Your task to perform on an android device: Open Android settings Image 0: 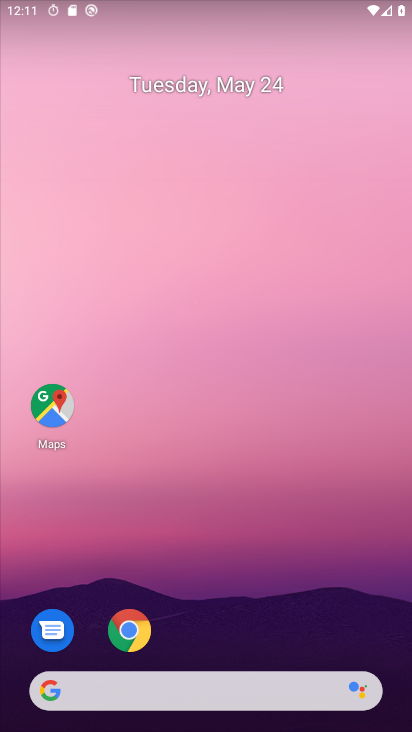
Step 0: drag from (191, 636) to (264, 160)
Your task to perform on an android device: Open Android settings Image 1: 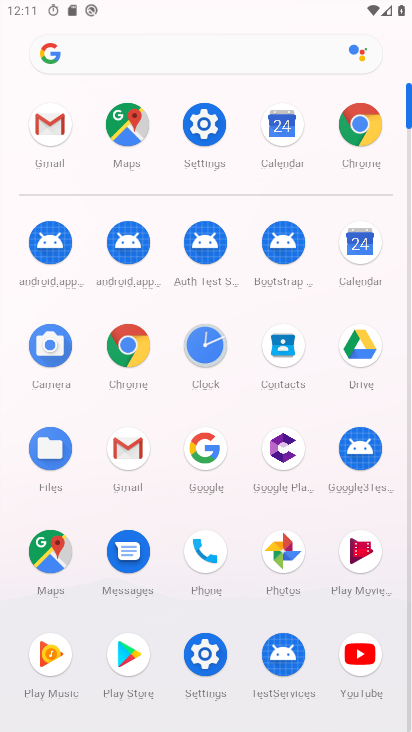
Step 1: click (215, 666)
Your task to perform on an android device: Open Android settings Image 2: 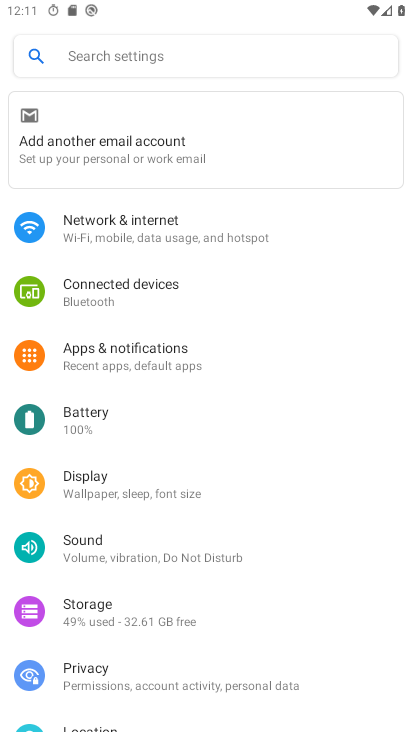
Step 2: drag from (128, 523) to (166, 339)
Your task to perform on an android device: Open Android settings Image 3: 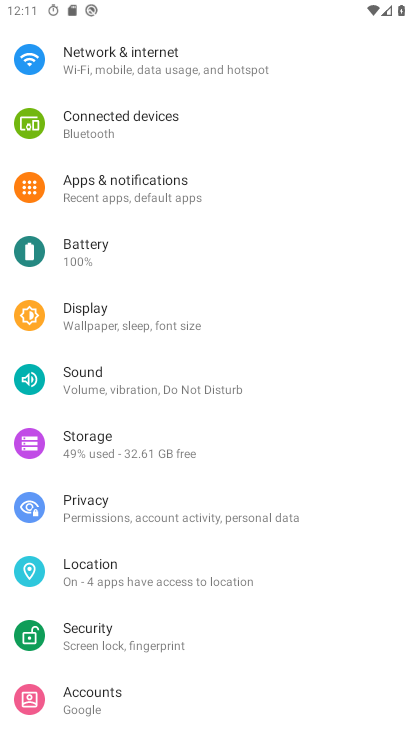
Step 3: drag from (154, 630) to (240, 159)
Your task to perform on an android device: Open Android settings Image 4: 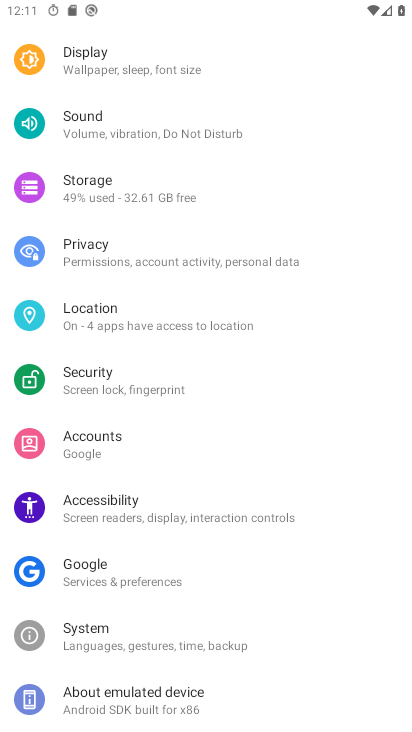
Step 4: drag from (154, 601) to (190, 347)
Your task to perform on an android device: Open Android settings Image 5: 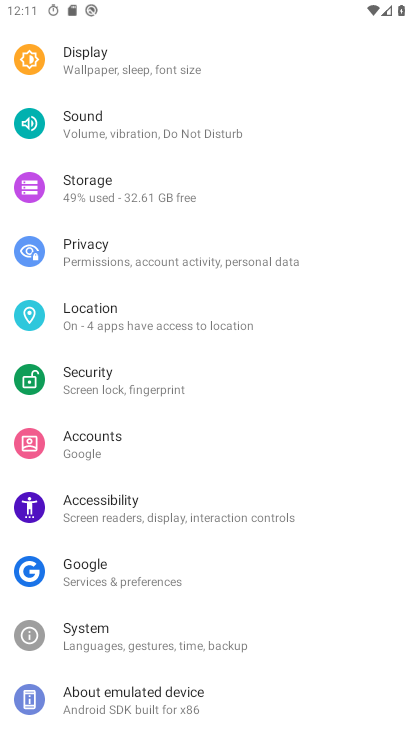
Step 5: click (134, 707)
Your task to perform on an android device: Open Android settings Image 6: 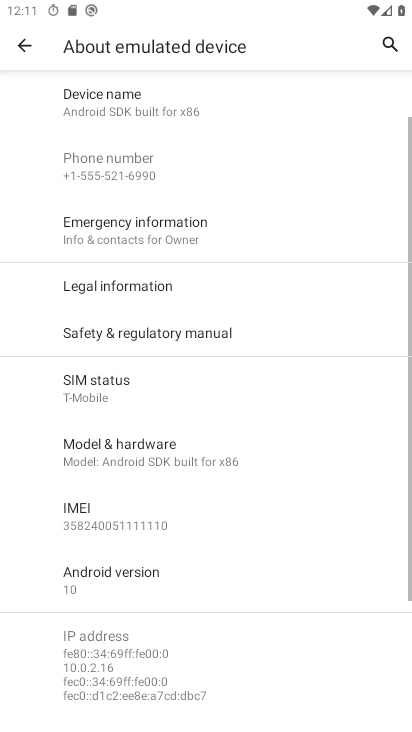
Step 6: drag from (196, 535) to (219, 361)
Your task to perform on an android device: Open Android settings Image 7: 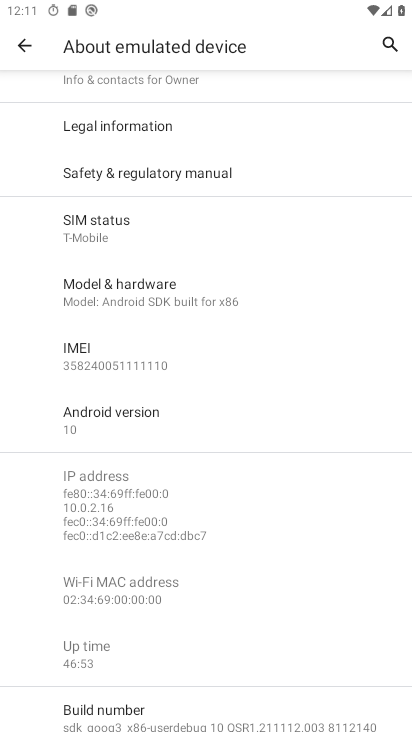
Step 7: click (135, 418)
Your task to perform on an android device: Open Android settings Image 8: 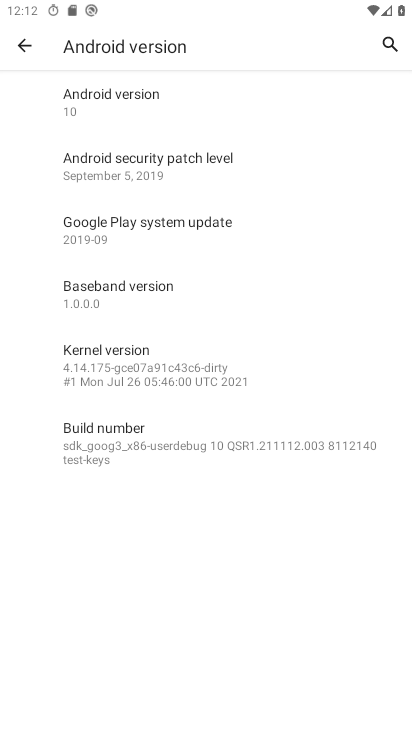
Step 8: task complete